Your task to perform on an android device: turn off data saver in the chrome app Image 0: 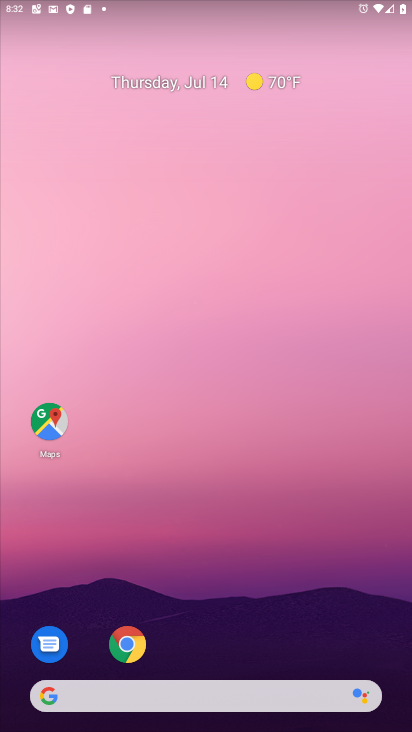
Step 0: click (283, 148)
Your task to perform on an android device: turn off data saver in the chrome app Image 1: 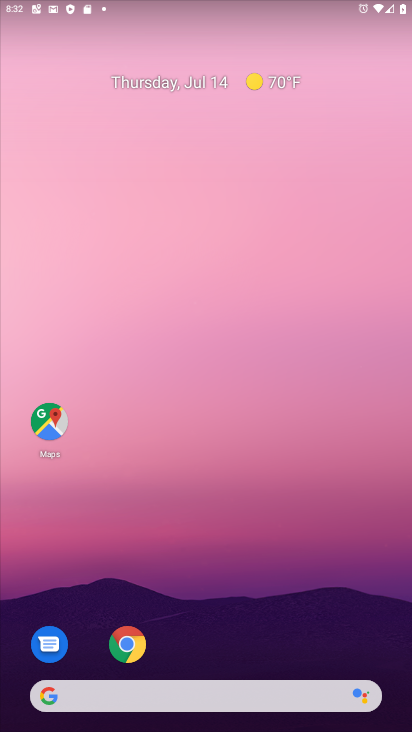
Step 1: drag from (223, 642) to (222, 267)
Your task to perform on an android device: turn off data saver in the chrome app Image 2: 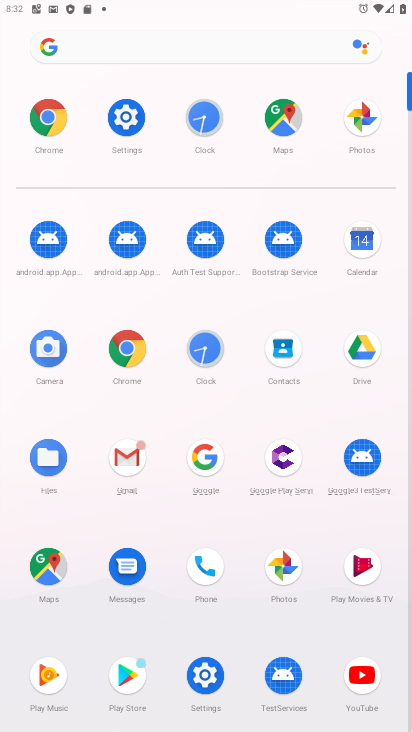
Step 2: click (56, 113)
Your task to perform on an android device: turn off data saver in the chrome app Image 3: 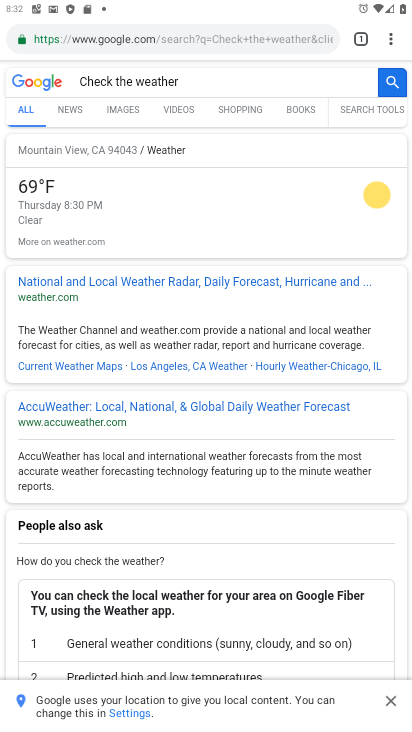
Step 3: click (396, 34)
Your task to perform on an android device: turn off data saver in the chrome app Image 4: 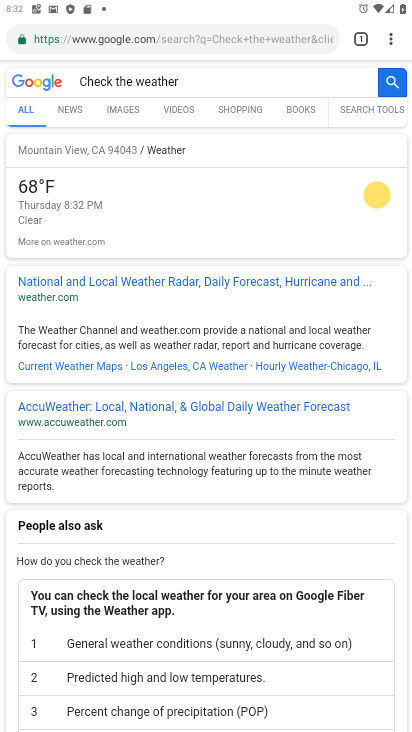
Step 4: click (396, 34)
Your task to perform on an android device: turn off data saver in the chrome app Image 5: 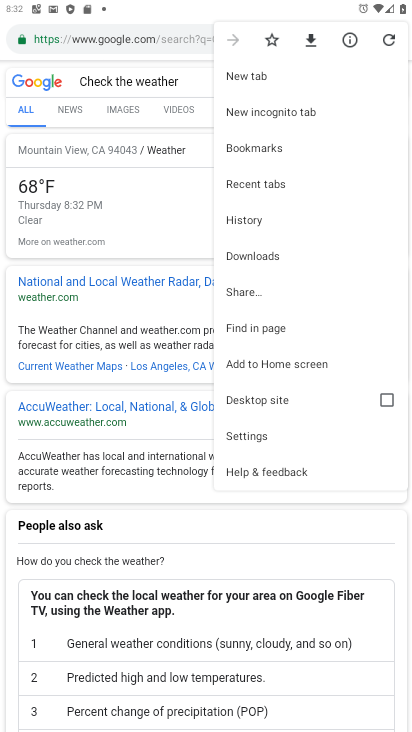
Step 5: click (253, 436)
Your task to perform on an android device: turn off data saver in the chrome app Image 6: 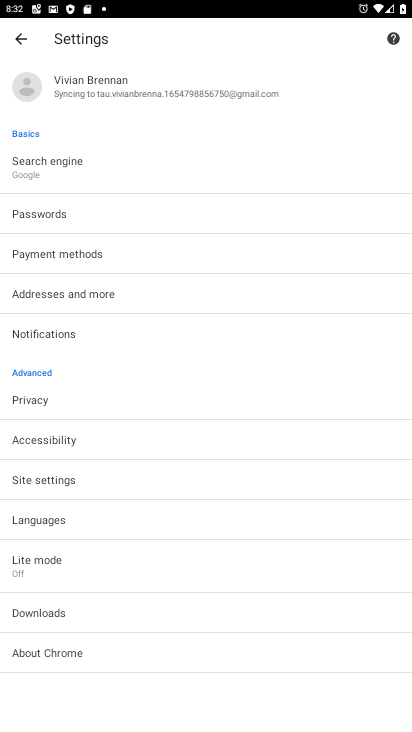
Step 6: click (61, 556)
Your task to perform on an android device: turn off data saver in the chrome app Image 7: 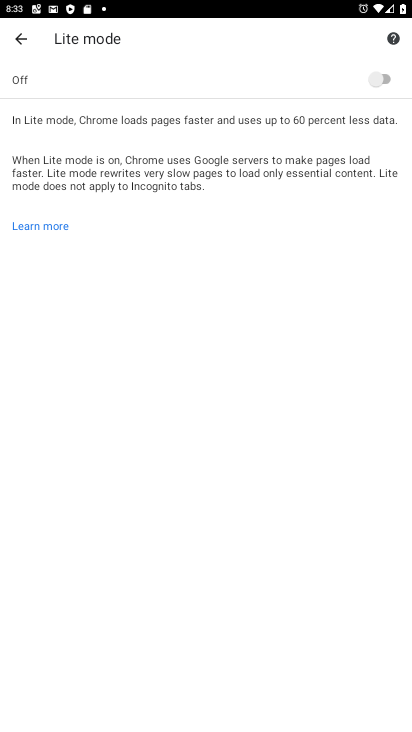
Step 7: task complete